Your task to perform on an android device: Open Google Maps and go to "Timeline" Image 0: 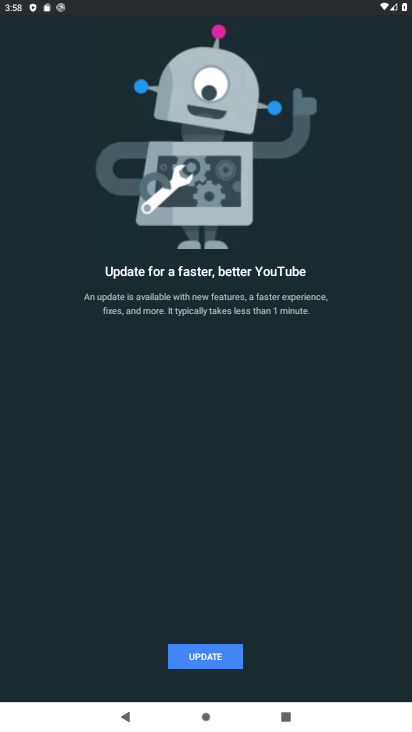
Step 0: press home button
Your task to perform on an android device: Open Google Maps and go to "Timeline" Image 1: 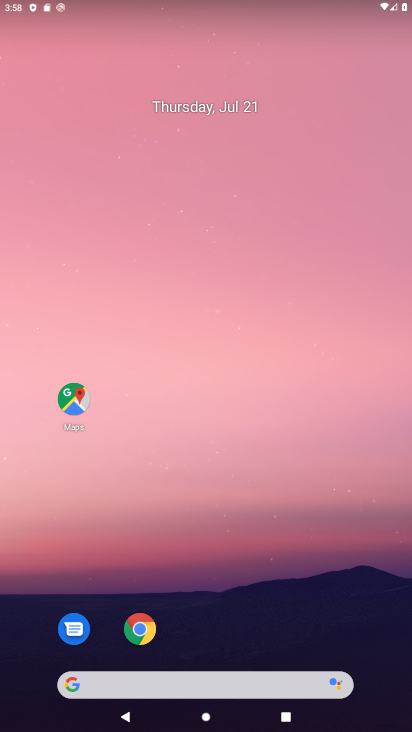
Step 1: click (75, 412)
Your task to perform on an android device: Open Google Maps and go to "Timeline" Image 2: 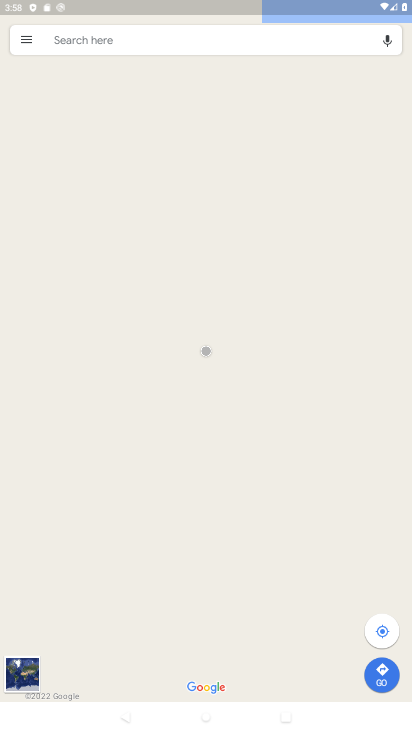
Step 2: click (30, 43)
Your task to perform on an android device: Open Google Maps and go to "Timeline" Image 3: 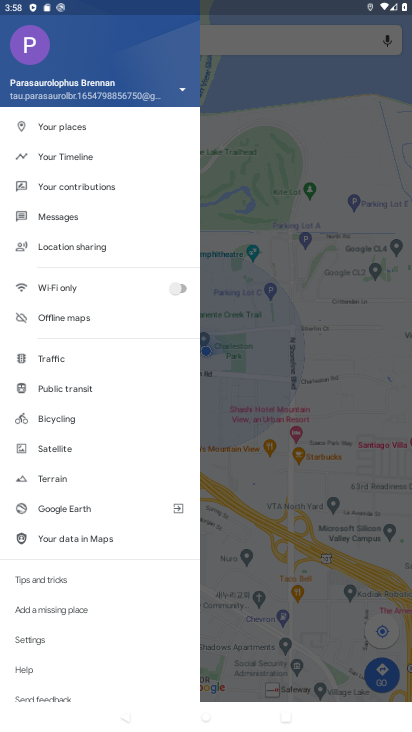
Step 3: click (34, 155)
Your task to perform on an android device: Open Google Maps and go to "Timeline" Image 4: 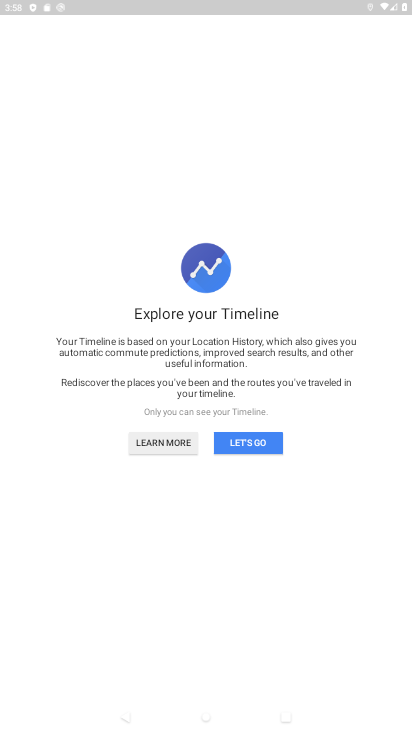
Step 4: click (243, 447)
Your task to perform on an android device: Open Google Maps and go to "Timeline" Image 5: 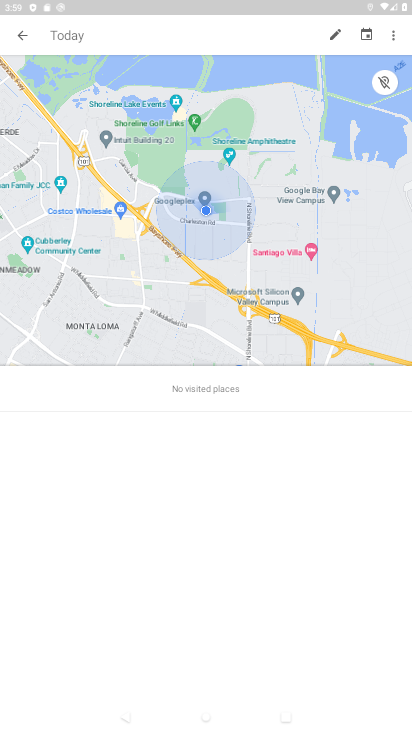
Step 5: task complete